Your task to perform on an android device: turn on the 12-hour format for clock Image 0: 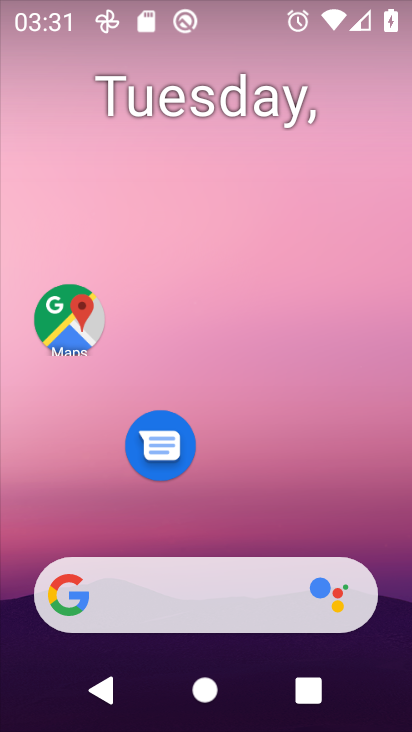
Step 0: drag from (292, 504) to (228, 44)
Your task to perform on an android device: turn on the 12-hour format for clock Image 1: 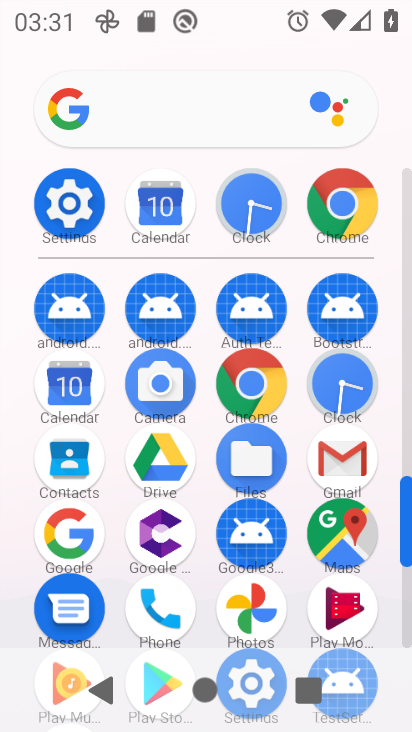
Step 1: click (239, 210)
Your task to perform on an android device: turn on the 12-hour format for clock Image 2: 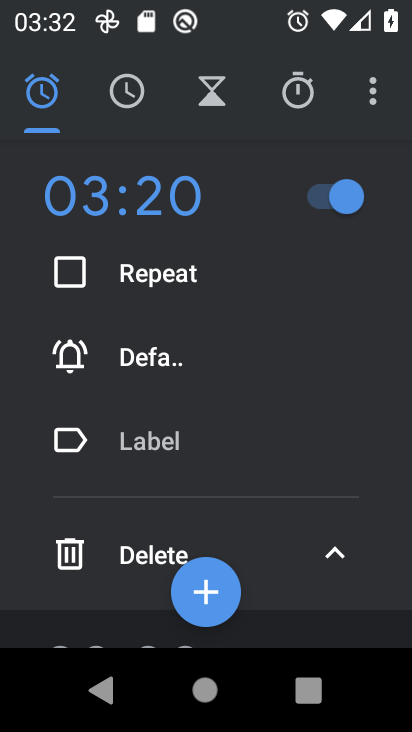
Step 2: drag from (232, 444) to (220, 266)
Your task to perform on an android device: turn on the 12-hour format for clock Image 3: 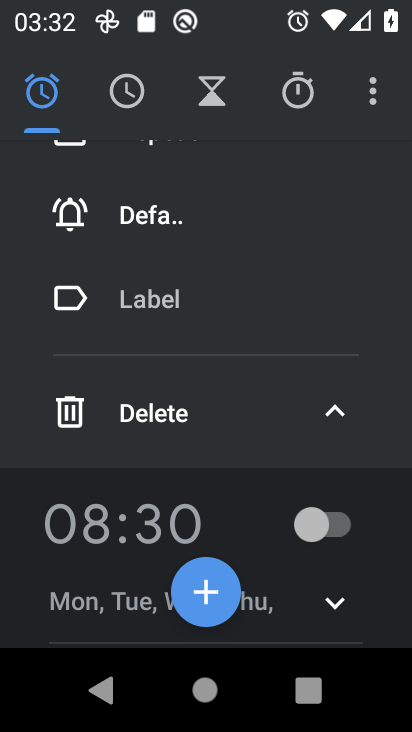
Step 3: click (374, 95)
Your task to perform on an android device: turn on the 12-hour format for clock Image 4: 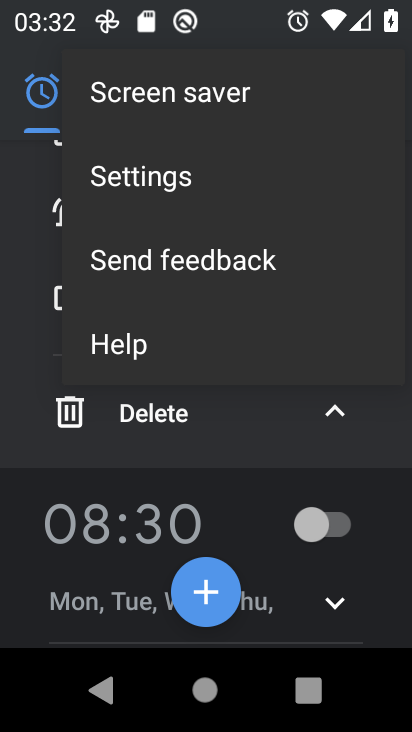
Step 4: click (173, 169)
Your task to perform on an android device: turn on the 12-hour format for clock Image 5: 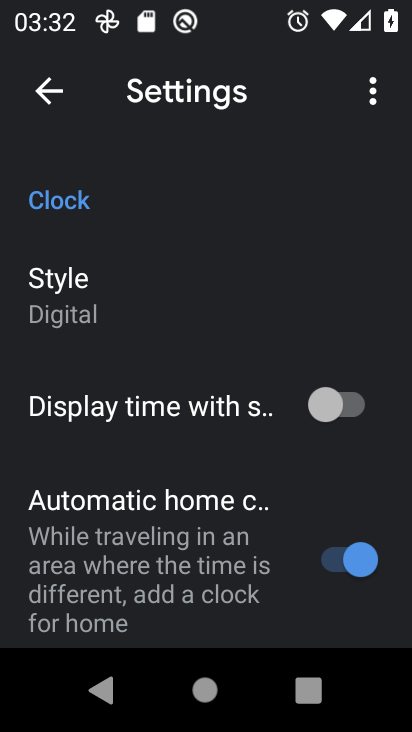
Step 5: drag from (211, 522) to (149, 307)
Your task to perform on an android device: turn on the 12-hour format for clock Image 6: 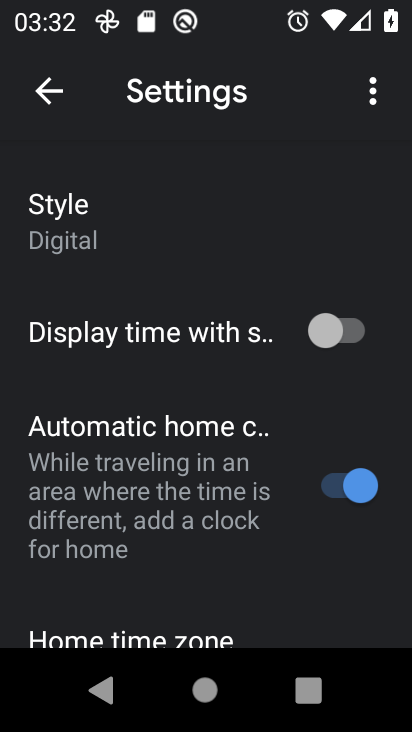
Step 6: drag from (218, 532) to (211, 418)
Your task to perform on an android device: turn on the 12-hour format for clock Image 7: 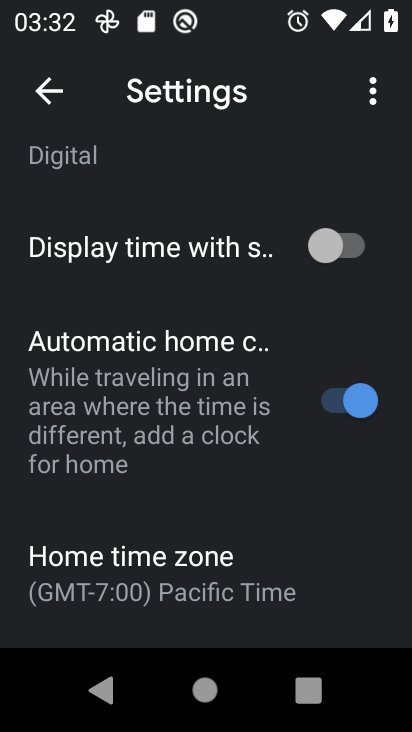
Step 7: drag from (227, 522) to (186, 108)
Your task to perform on an android device: turn on the 12-hour format for clock Image 8: 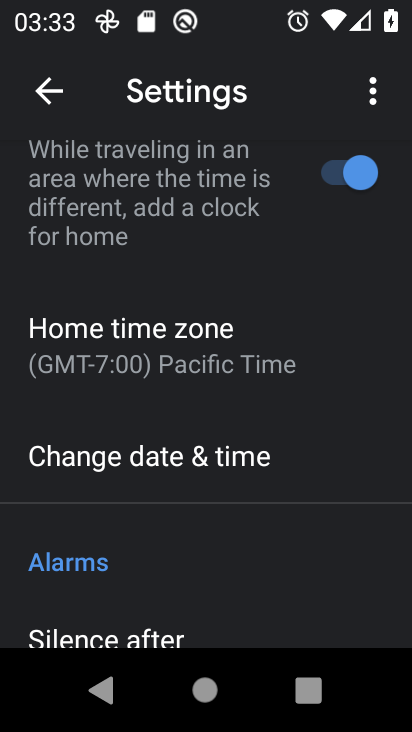
Step 8: click (203, 454)
Your task to perform on an android device: turn on the 12-hour format for clock Image 9: 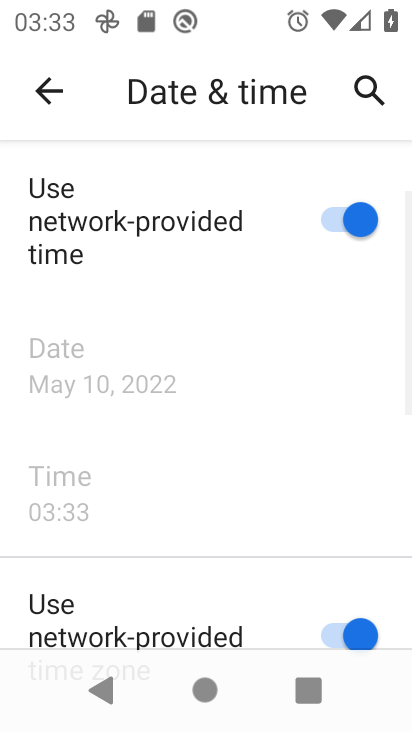
Step 9: drag from (212, 451) to (194, 202)
Your task to perform on an android device: turn on the 12-hour format for clock Image 10: 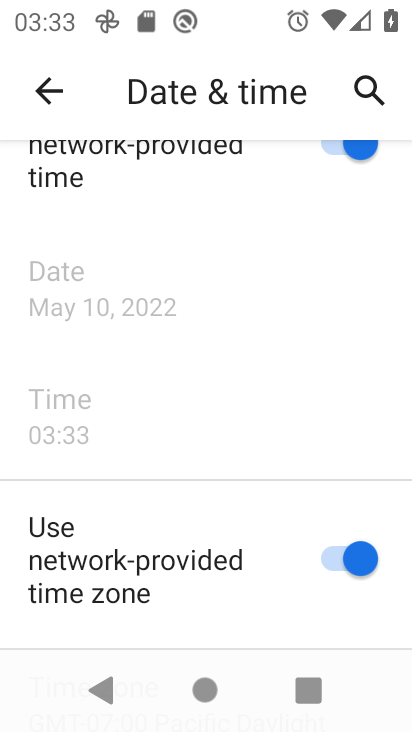
Step 10: drag from (228, 460) to (226, 233)
Your task to perform on an android device: turn on the 12-hour format for clock Image 11: 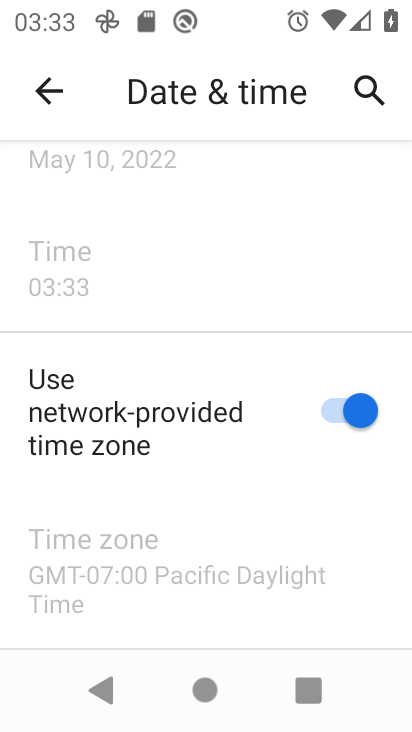
Step 11: drag from (200, 542) to (195, 243)
Your task to perform on an android device: turn on the 12-hour format for clock Image 12: 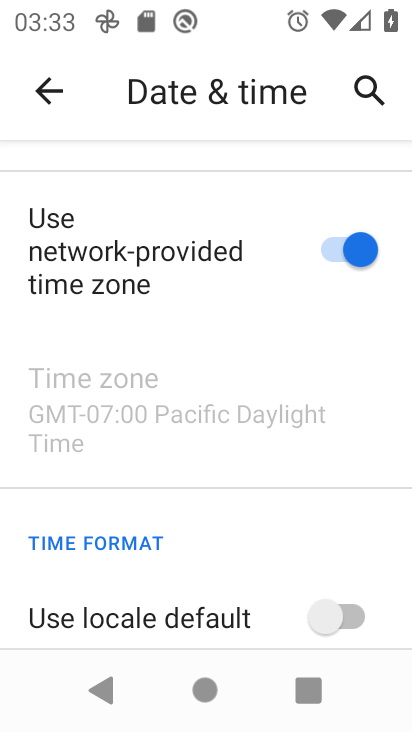
Step 12: drag from (196, 555) to (193, 263)
Your task to perform on an android device: turn on the 12-hour format for clock Image 13: 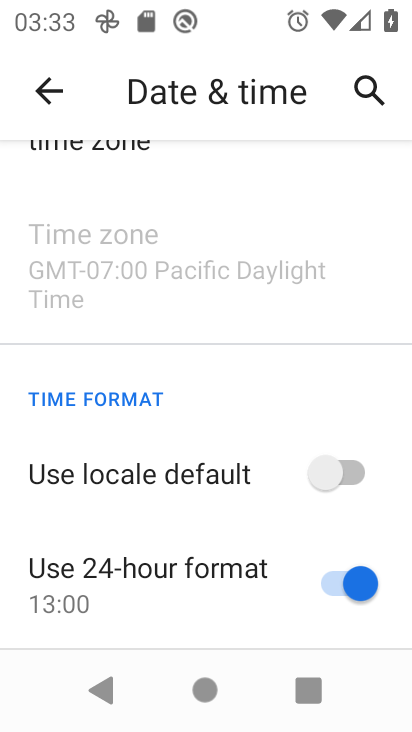
Step 13: click (328, 464)
Your task to perform on an android device: turn on the 12-hour format for clock Image 14: 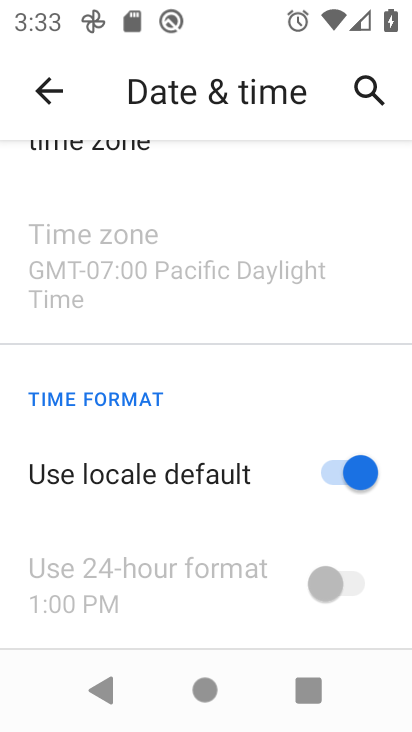
Step 14: task complete